Your task to perform on an android device: install app "Fetch Rewards" Image 0: 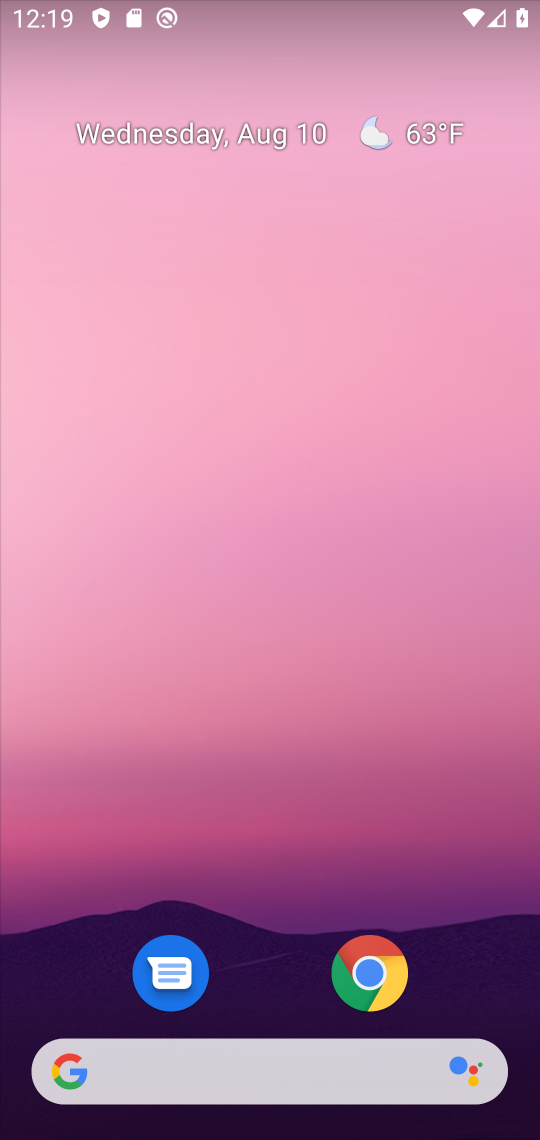
Step 0: drag from (311, 974) to (332, 102)
Your task to perform on an android device: install app "Fetch Rewards" Image 1: 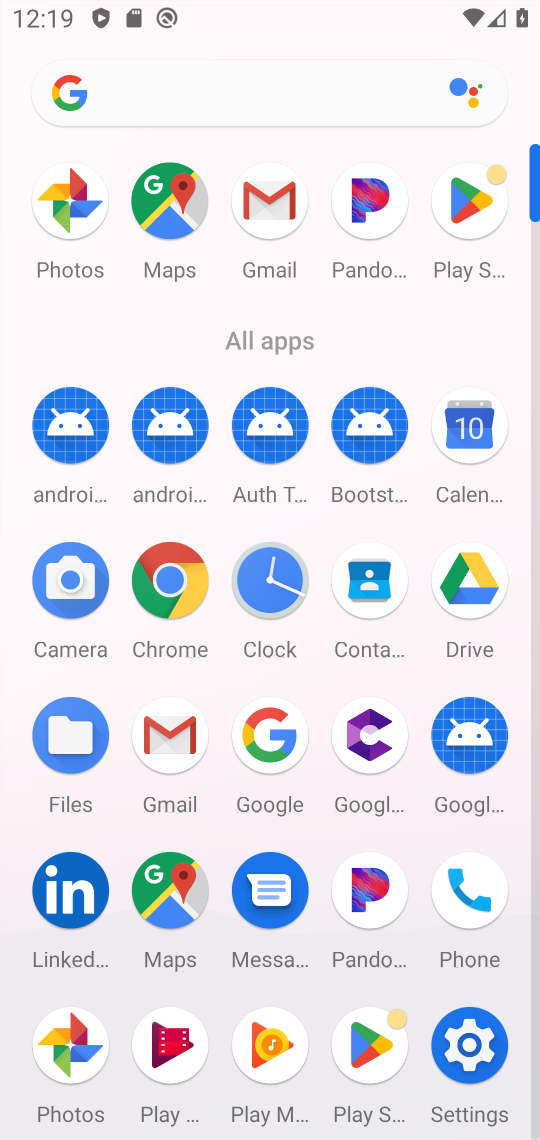
Step 1: click (466, 202)
Your task to perform on an android device: install app "Fetch Rewards" Image 2: 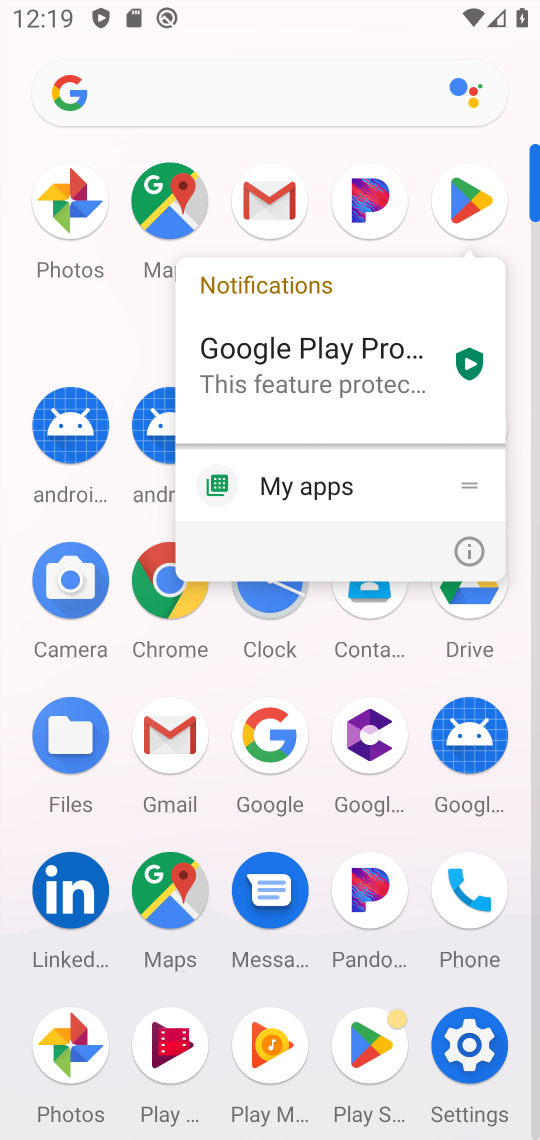
Step 2: click (468, 210)
Your task to perform on an android device: install app "Fetch Rewards" Image 3: 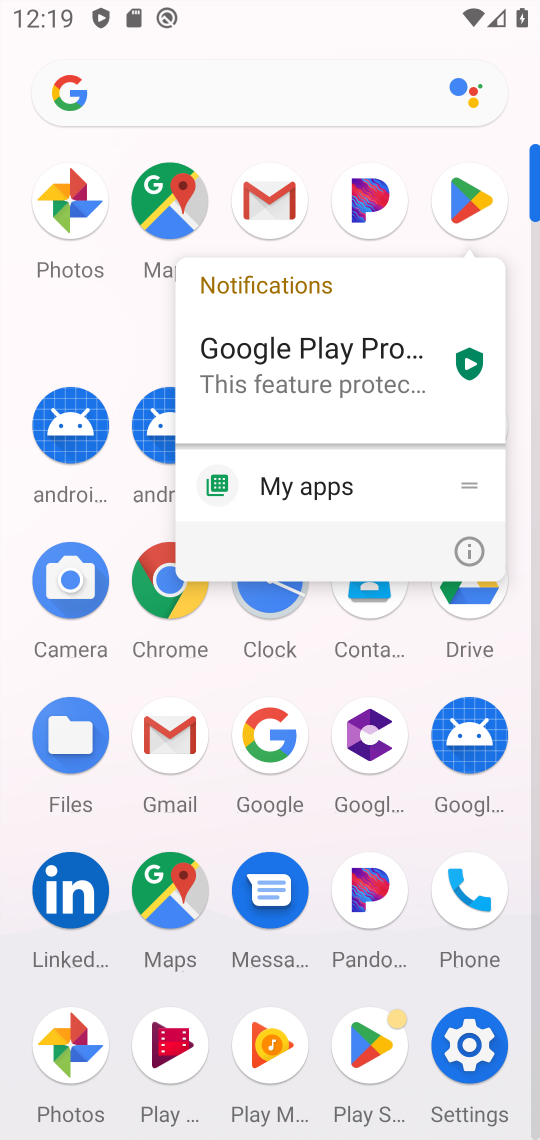
Step 3: click (467, 216)
Your task to perform on an android device: install app "Fetch Rewards" Image 4: 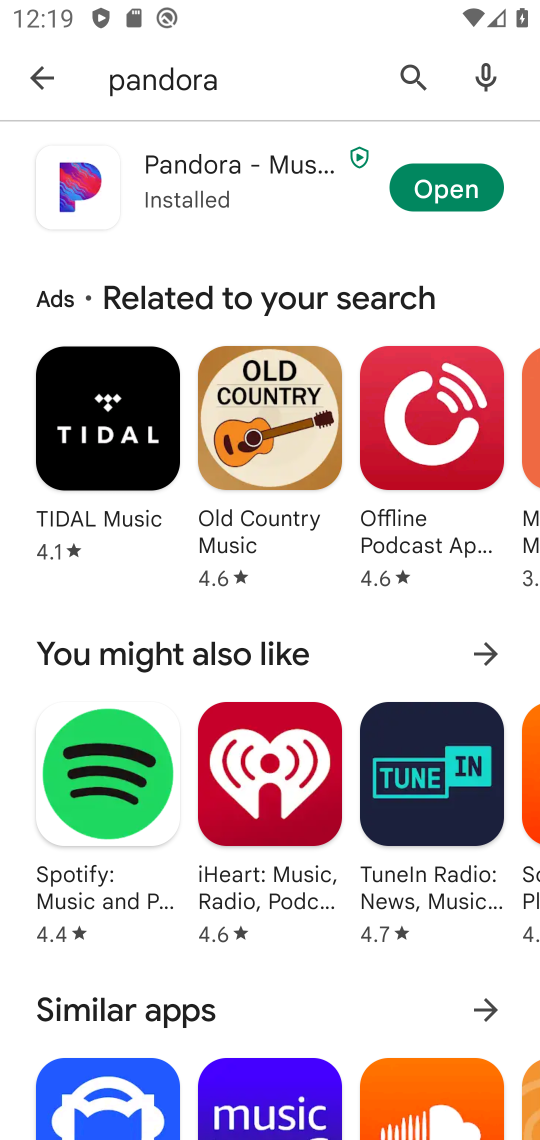
Step 4: click (413, 75)
Your task to perform on an android device: install app "Fetch Rewards" Image 5: 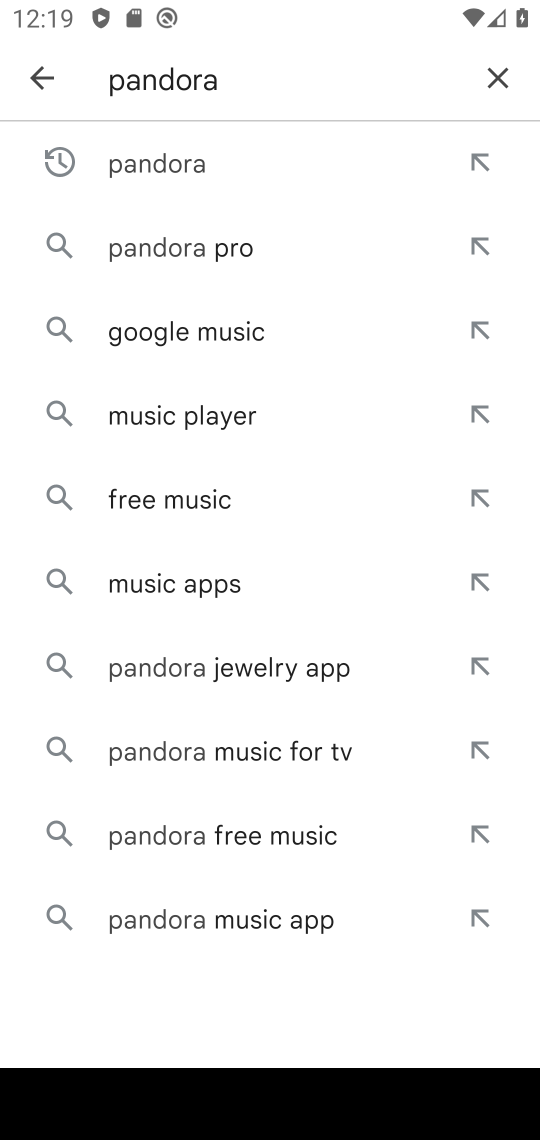
Step 5: click (499, 80)
Your task to perform on an android device: install app "Fetch Rewards" Image 6: 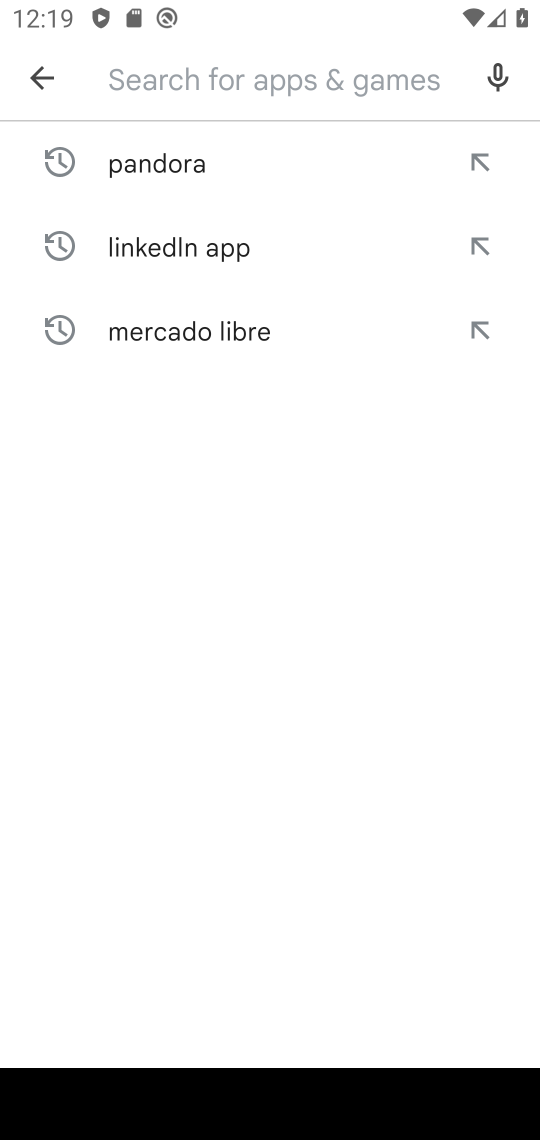
Step 6: click (278, 85)
Your task to perform on an android device: install app "Fetch Rewards" Image 7: 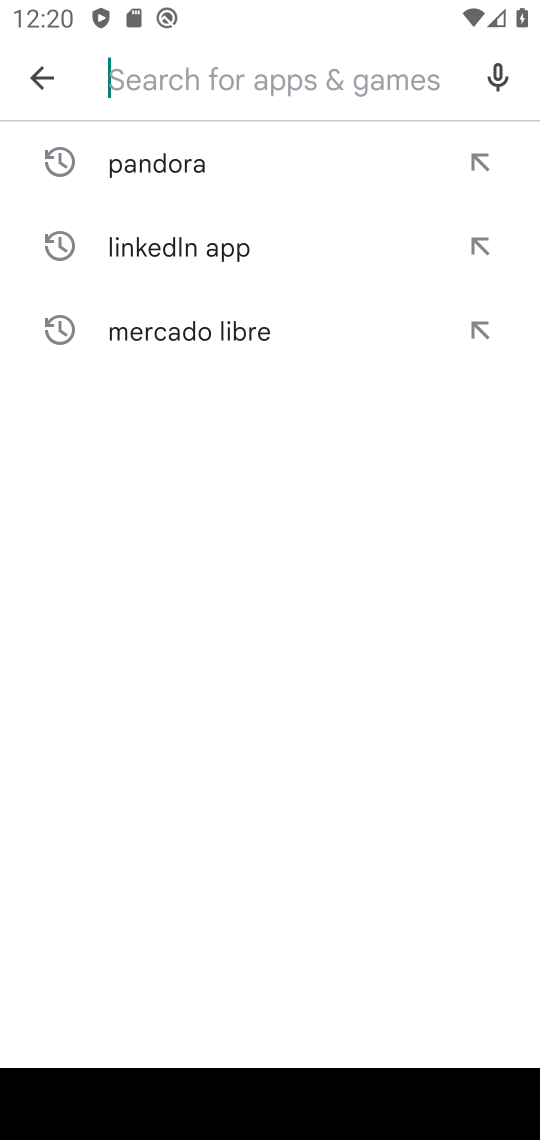
Step 7: type "fetch rewards"
Your task to perform on an android device: install app "Fetch Rewards" Image 8: 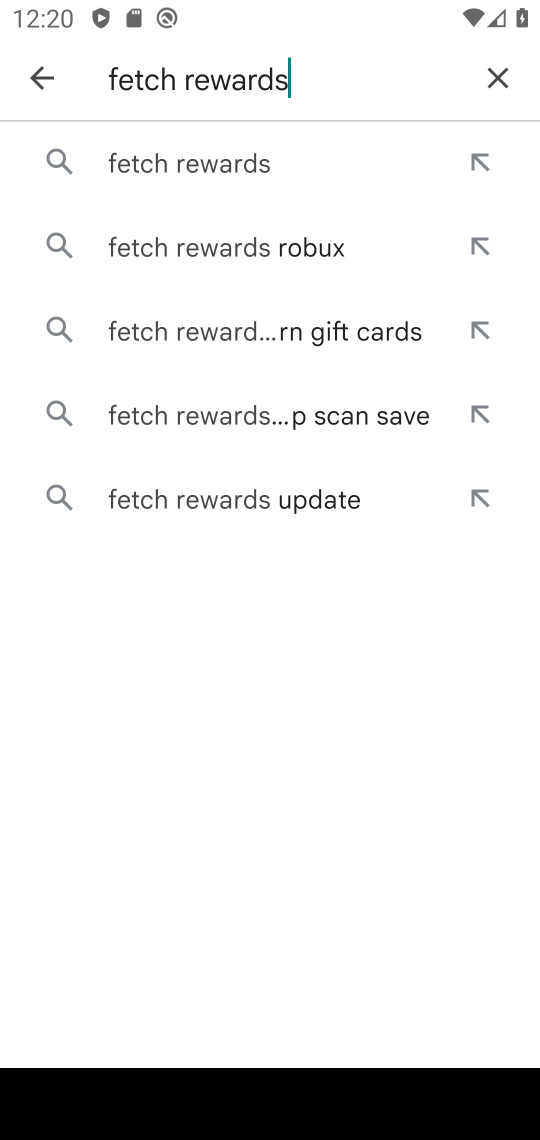
Step 8: click (225, 156)
Your task to perform on an android device: install app "Fetch Rewards" Image 9: 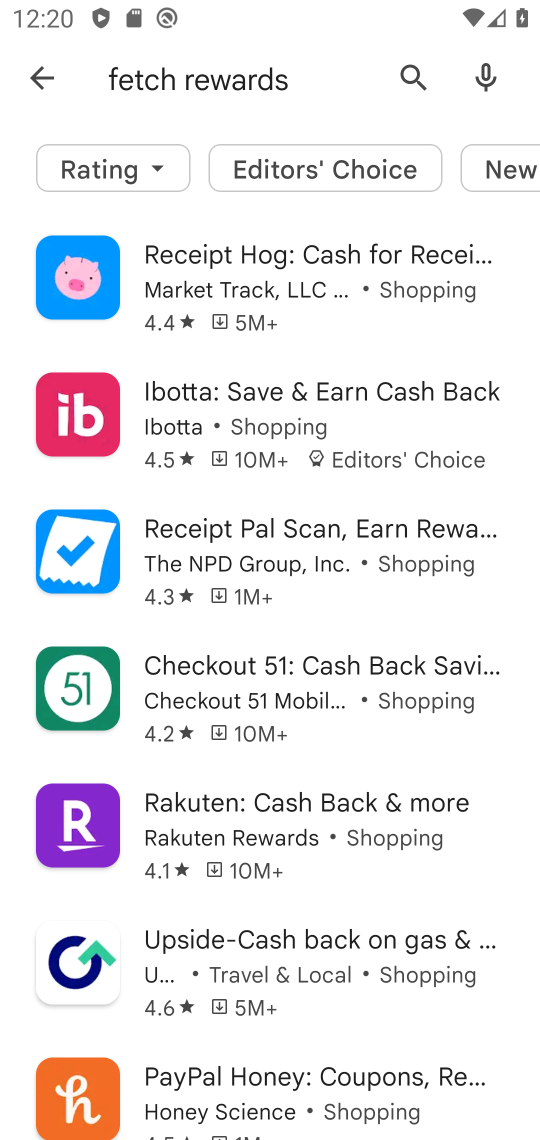
Step 9: task complete